Your task to perform on an android device: create a new album in the google photos Image 0: 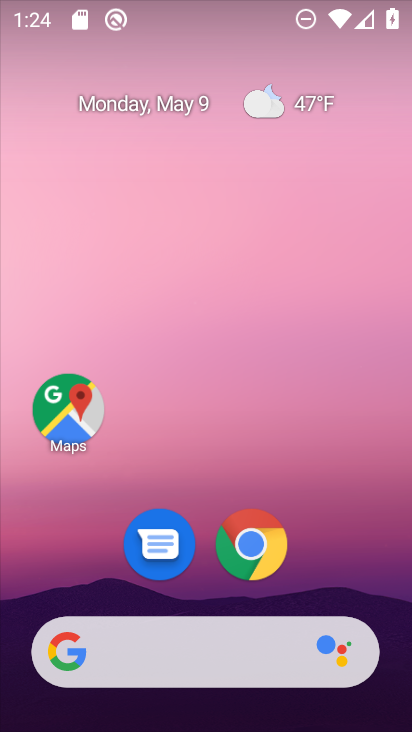
Step 0: drag from (350, 509) to (333, 2)
Your task to perform on an android device: create a new album in the google photos Image 1: 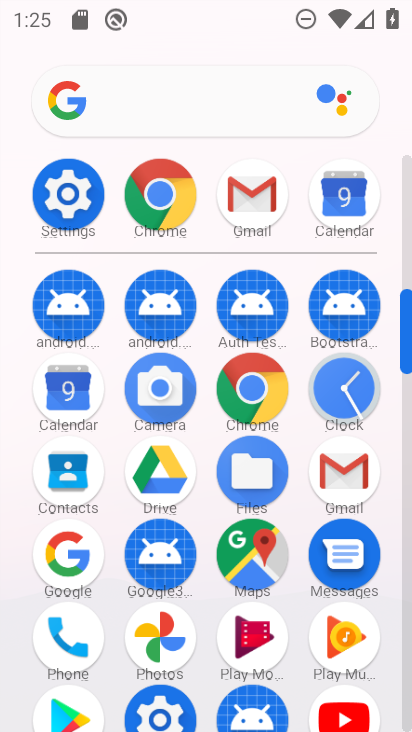
Step 1: click (165, 643)
Your task to perform on an android device: create a new album in the google photos Image 2: 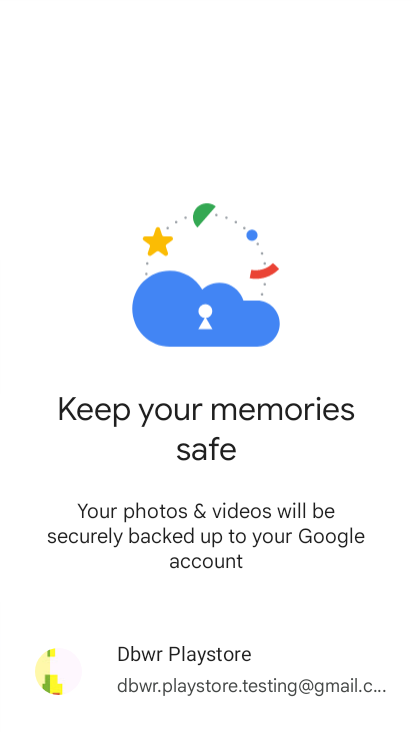
Step 2: click (167, 663)
Your task to perform on an android device: create a new album in the google photos Image 3: 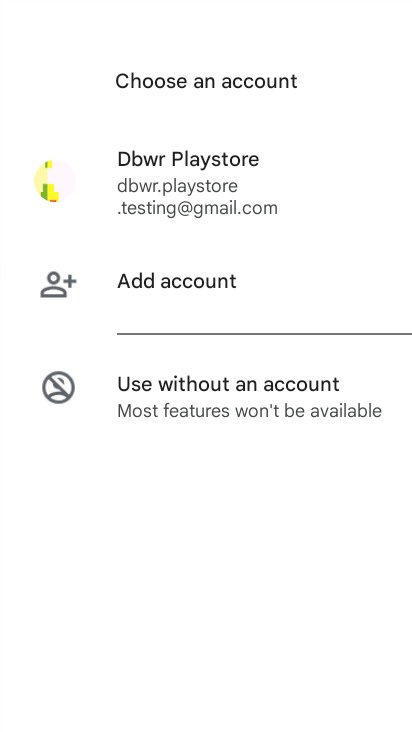
Step 3: click (204, 166)
Your task to perform on an android device: create a new album in the google photos Image 4: 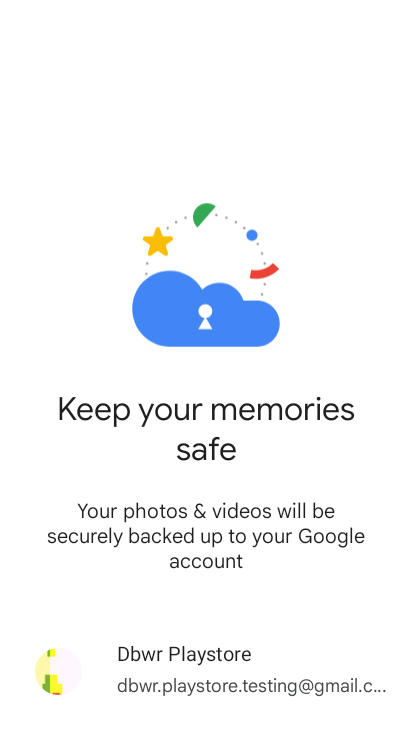
Step 4: task complete